Your task to perform on an android device: When is my next meeting? Image 0: 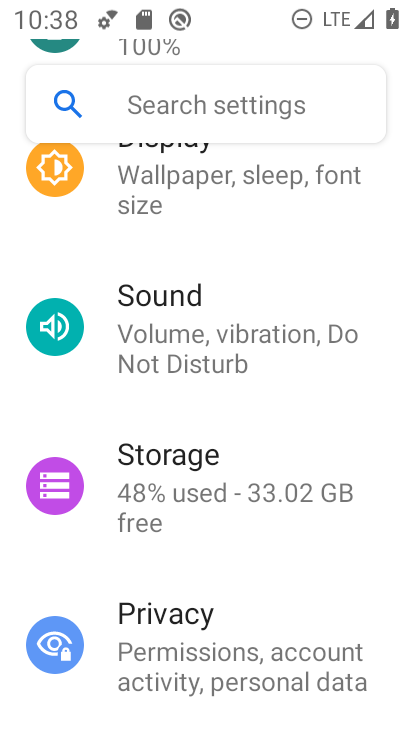
Step 0: press back button
Your task to perform on an android device: When is my next meeting? Image 1: 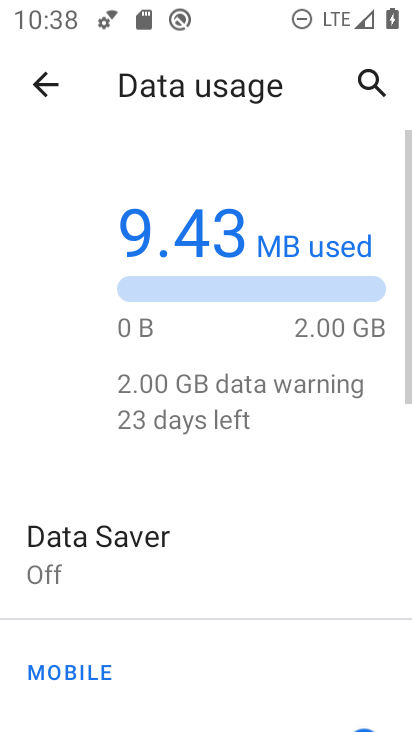
Step 1: press back button
Your task to perform on an android device: When is my next meeting? Image 2: 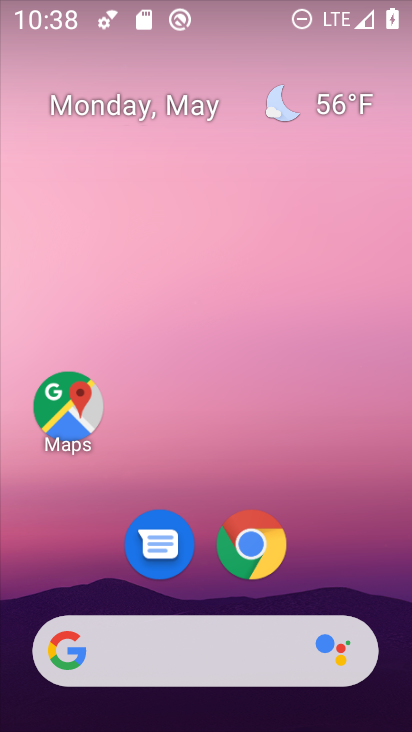
Step 2: drag from (336, 564) to (251, 107)
Your task to perform on an android device: When is my next meeting? Image 3: 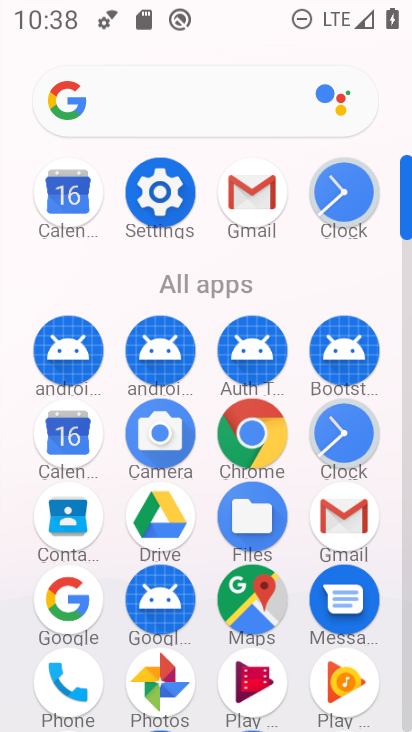
Step 3: click (70, 442)
Your task to perform on an android device: When is my next meeting? Image 4: 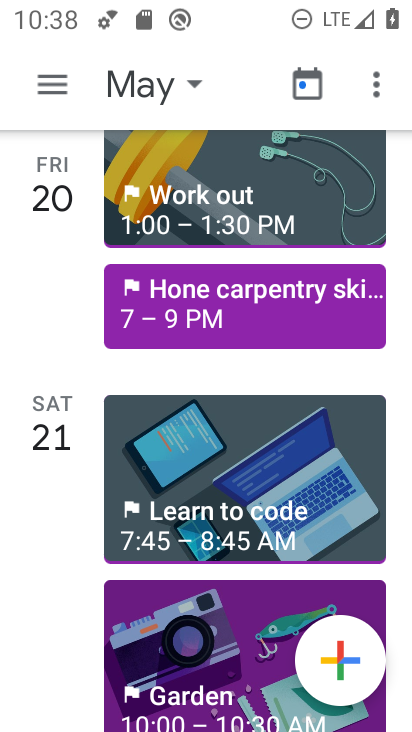
Step 4: click (186, 75)
Your task to perform on an android device: When is my next meeting? Image 5: 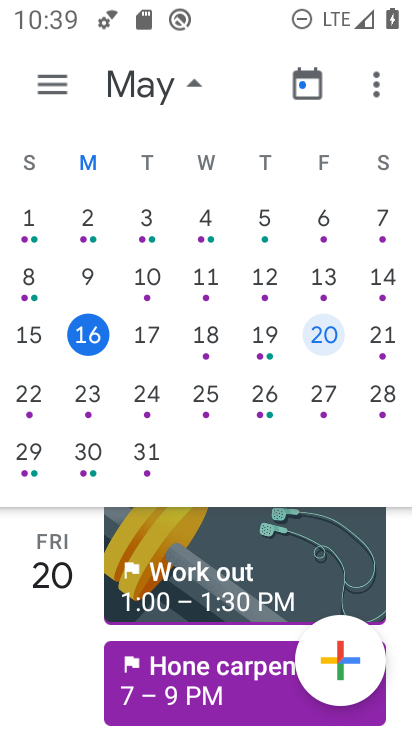
Step 5: click (314, 84)
Your task to perform on an android device: When is my next meeting? Image 6: 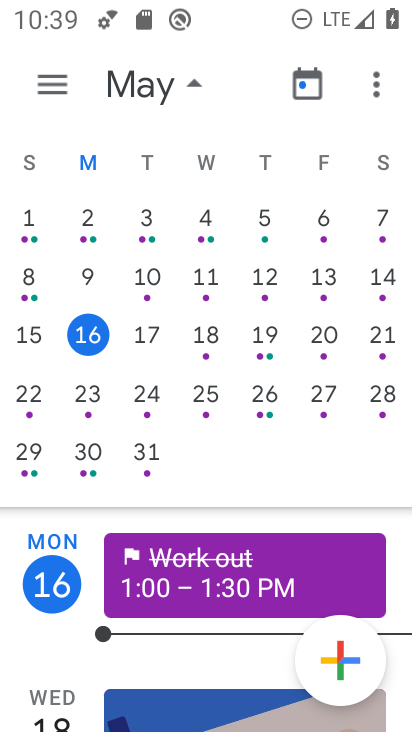
Step 6: click (209, 327)
Your task to perform on an android device: When is my next meeting? Image 7: 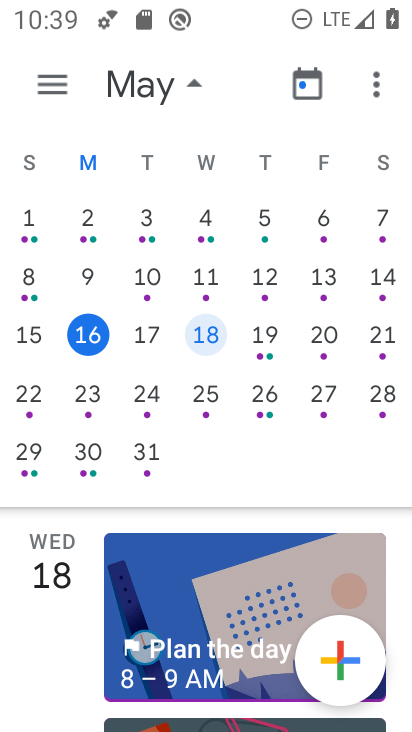
Step 7: click (47, 78)
Your task to perform on an android device: When is my next meeting? Image 8: 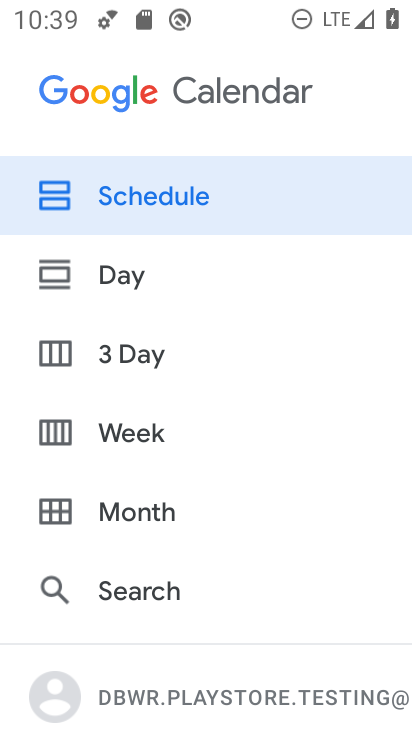
Step 8: click (107, 197)
Your task to perform on an android device: When is my next meeting? Image 9: 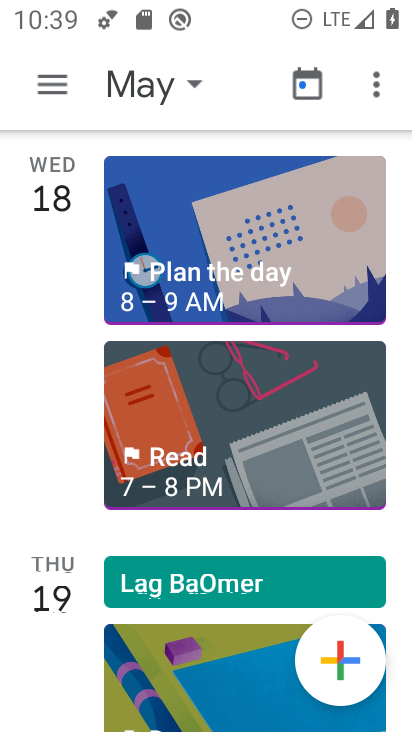
Step 9: task complete